Your task to perform on an android device: View the shopping cart on bestbuy. Search for jbl charge 4 on bestbuy, select the first entry, add it to the cart, then select checkout. Image 0: 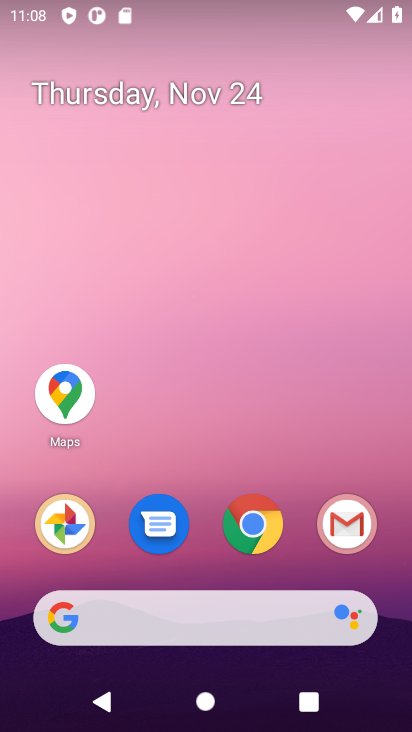
Step 0: click (262, 538)
Your task to perform on an android device: View the shopping cart on bestbuy. Search for jbl charge 4 on bestbuy, select the first entry, add it to the cart, then select checkout. Image 1: 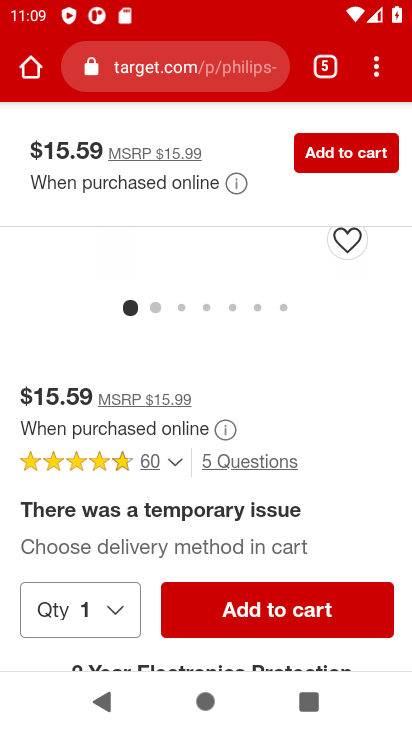
Step 1: click (183, 72)
Your task to perform on an android device: View the shopping cart on bestbuy. Search for jbl charge 4 on bestbuy, select the first entry, add it to the cart, then select checkout. Image 2: 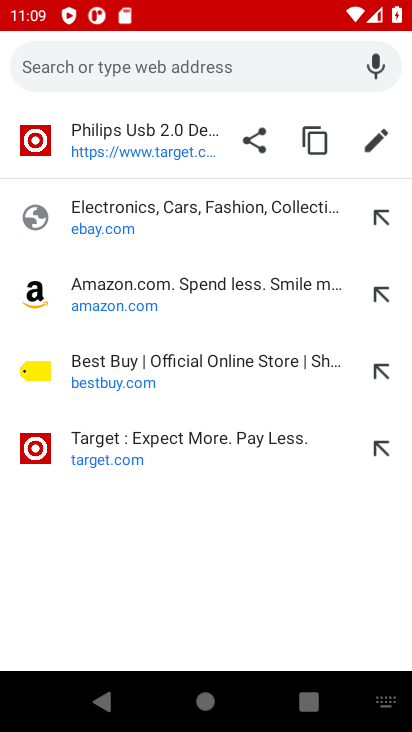
Step 2: click (70, 379)
Your task to perform on an android device: View the shopping cart on bestbuy. Search for jbl charge 4 on bestbuy, select the first entry, add it to the cart, then select checkout. Image 3: 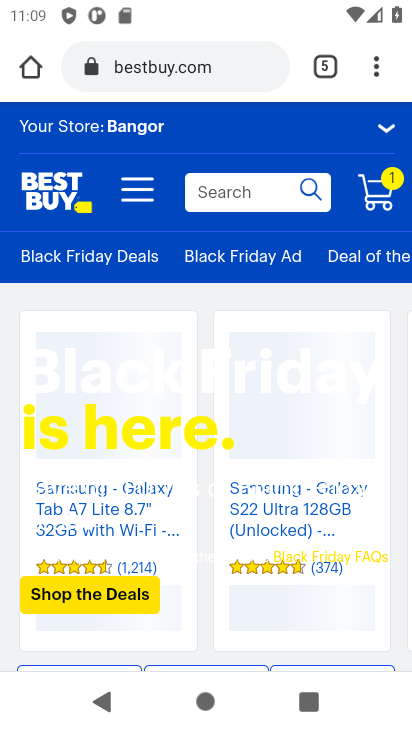
Step 3: click (383, 196)
Your task to perform on an android device: View the shopping cart on bestbuy. Search for jbl charge 4 on bestbuy, select the first entry, add it to the cart, then select checkout. Image 4: 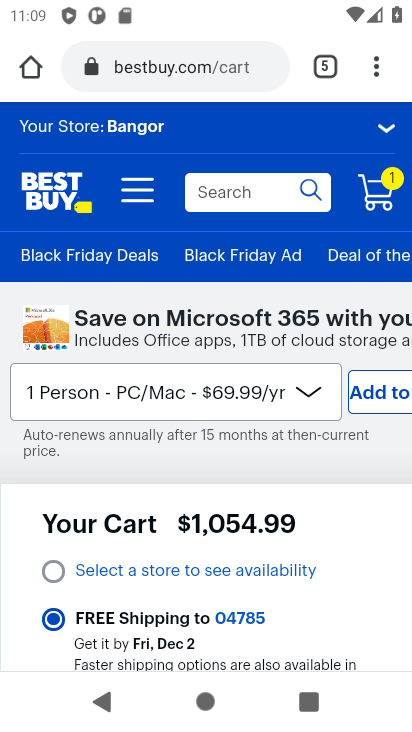
Step 4: drag from (149, 486) to (155, 321)
Your task to perform on an android device: View the shopping cart on bestbuy. Search for jbl charge 4 on bestbuy, select the first entry, add it to the cart, then select checkout. Image 5: 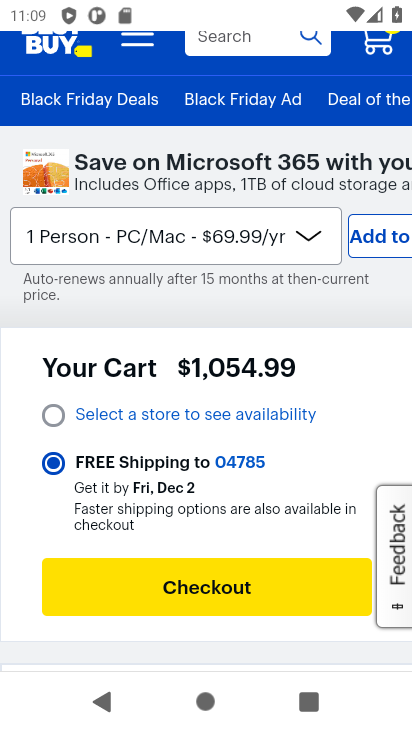
Step 5: drag from (210, 273) to (214, 444)
Your task to perform on an android device: View the shopping cart on bestbuy. Search for jbl charge 4 on bestbuy, select the first entry, add it to the cart, then select checkout. Image 6: 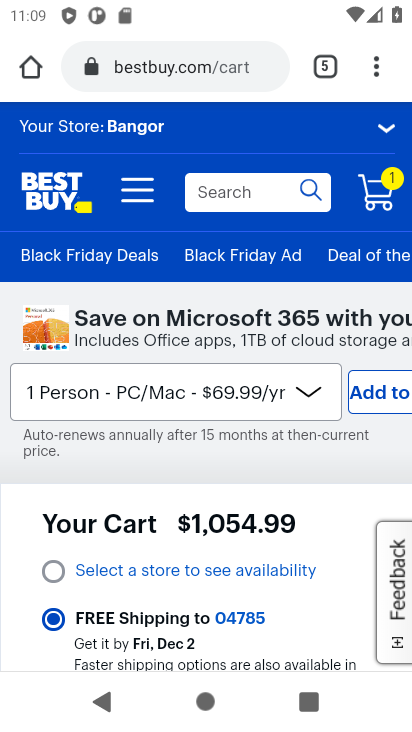
Step 6: click (205, 200)
Your task to perform on an android device: View the shopping cart on bestbuy. Search for jbl charge 4 on bestbuy, select the first entry, add it to the cart, then select checkout. Image 7: 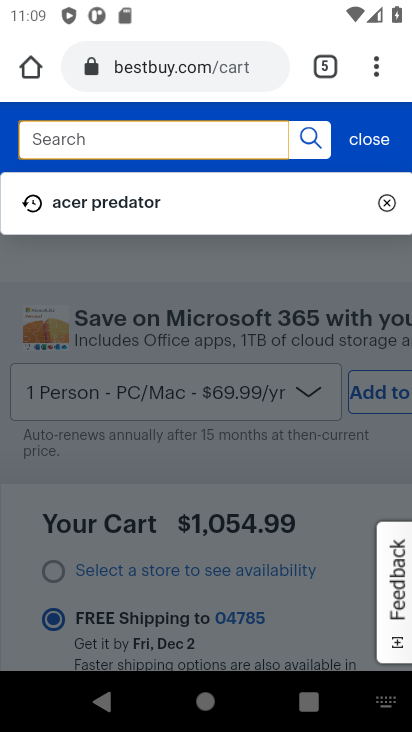
Step 7: type "jbl charge 4"
Your task to perform on an android device: View the shopping cart on bestbuy. Search for jbl charge 4 on bestbuy, select the first entry, add it to the cart, then select checkout. Image 8: 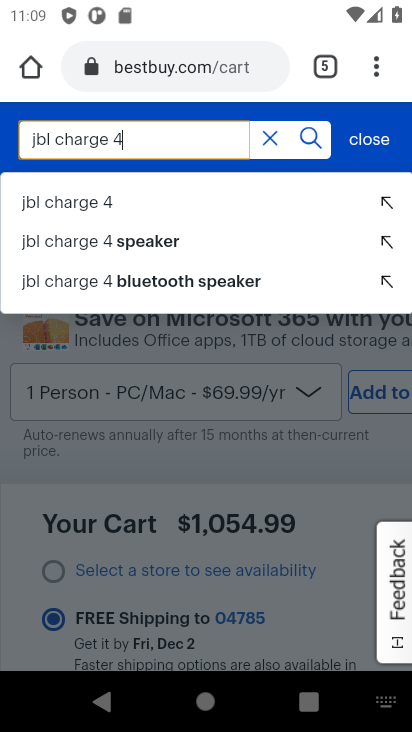
Step 8: click (61, 202)
Your task to perform on an android device: View the shopping cart on bestbuy. Search for jbl charge 4 on bestbuy, select the first entry, add it to the cart, then select checkout. Image 9: 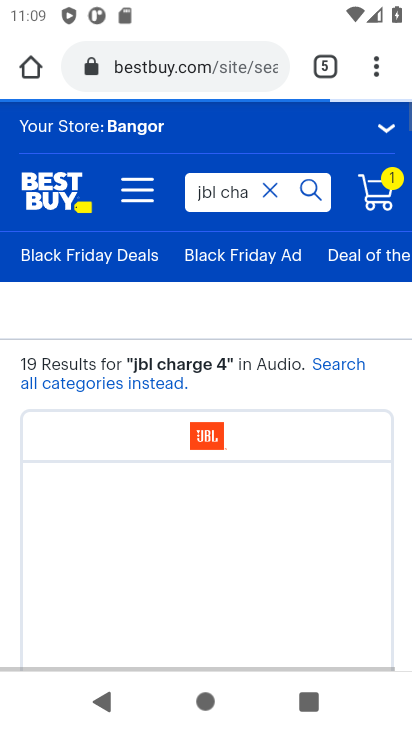
Step 9: task complete